Your task to perform on an android device: Open wifi settings Image 0: 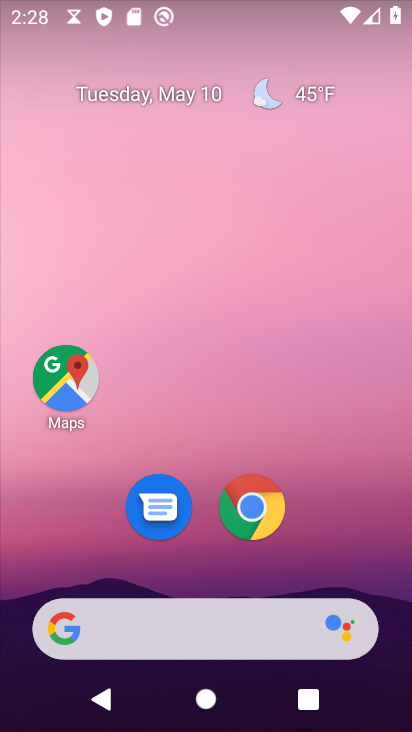
Step 0: drag from (304, 535) to (172, 222)
Your task to perform on an android device: Open wifi settings Image 1: 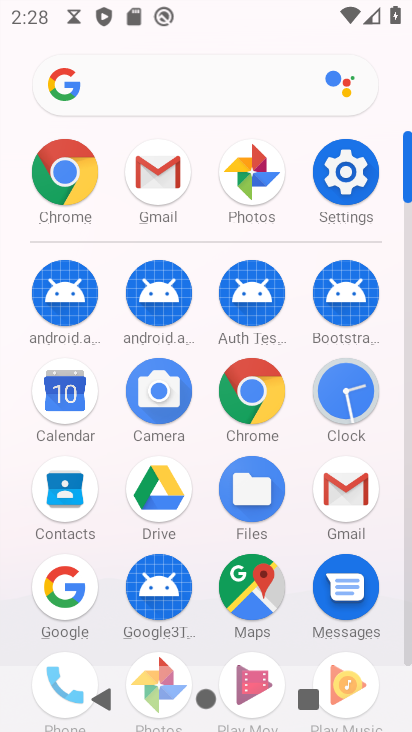
Step 1: click (351, 173)
Your task to perform on an android device: Open wifi settings Image 2: 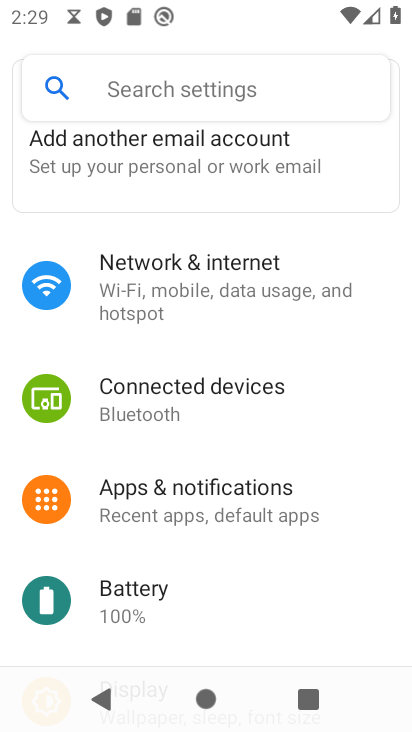
Step 2: click (187, 284)
Your task to perform on an android device: Open wifi settings Image 3: 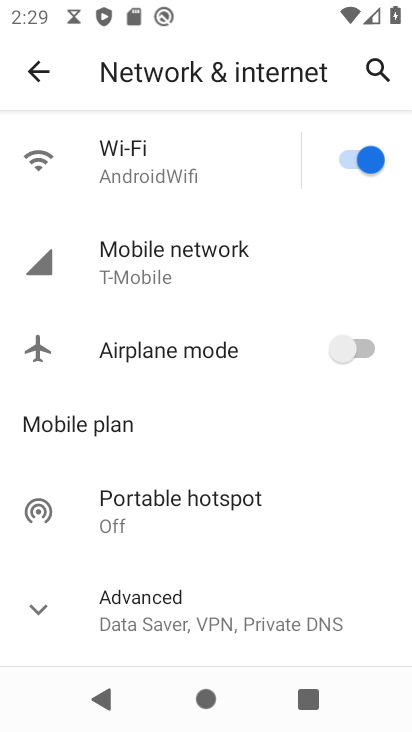
Step 3: click (109, 146)
Your task to perform on an android device: Open wifi settings Image 4: 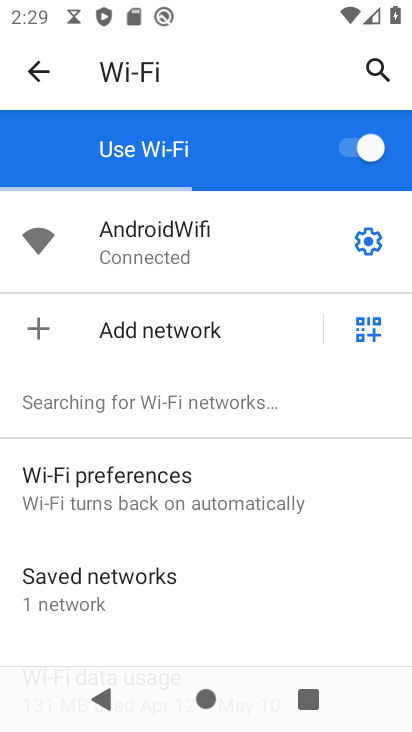
Step 4: task complete